Your task to perform on an android device: Install the Wikipedia app Image 0: 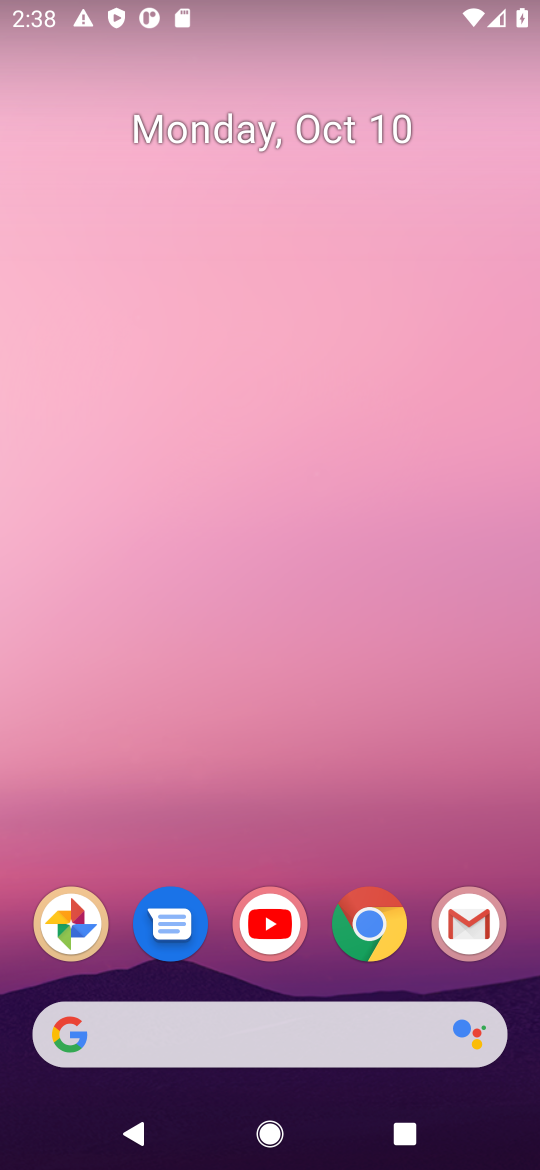
Step 0: drag from (50, 927) to (271, 472)
Your task to perform on an android device: Install the Wikipedia app Image 1: 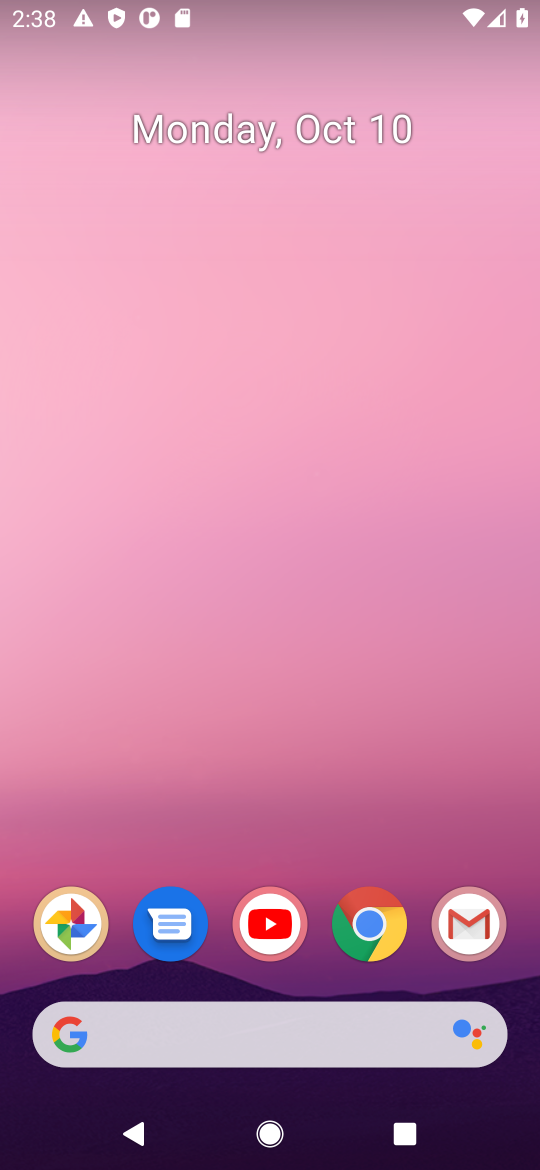
Step 1: drag from (356, 1025) to (335, 166)
Your task to perform on an android device: Install the Wikipedia app Image 2: 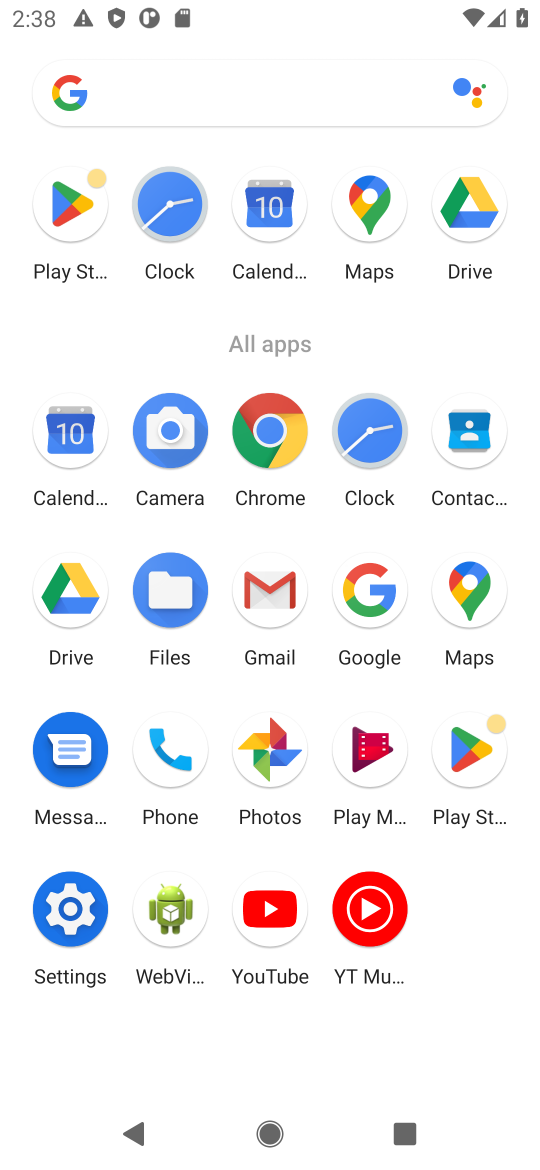
Step 2: click (474, 757)
Your task to perform on an android device: Install the Wikipedia app Image 3: 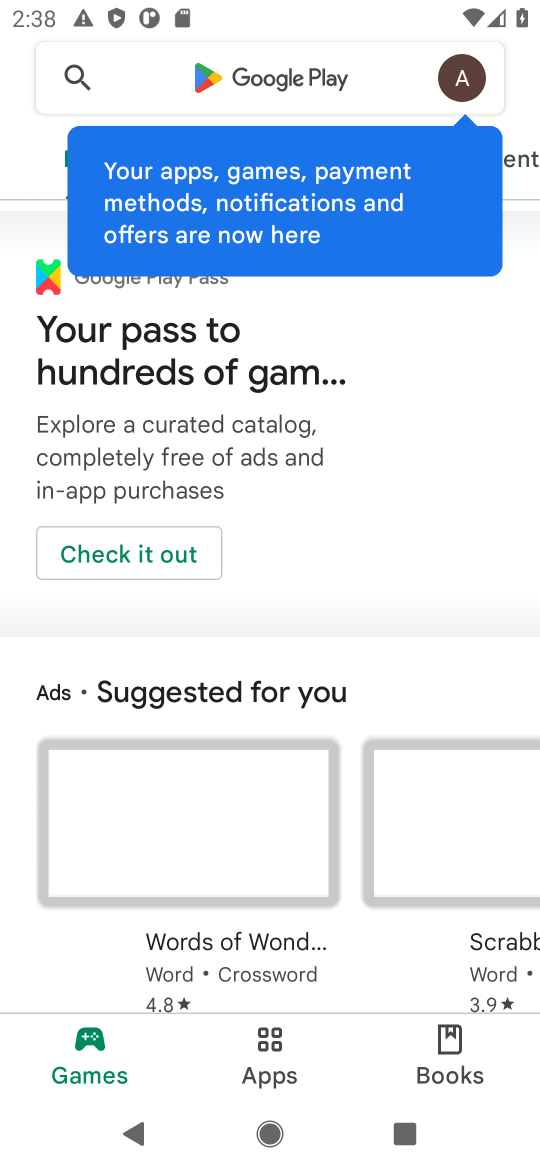
Step 3: click (278, 70)
Your task to perform on an android device: Install the Wikipedia app Image 4: 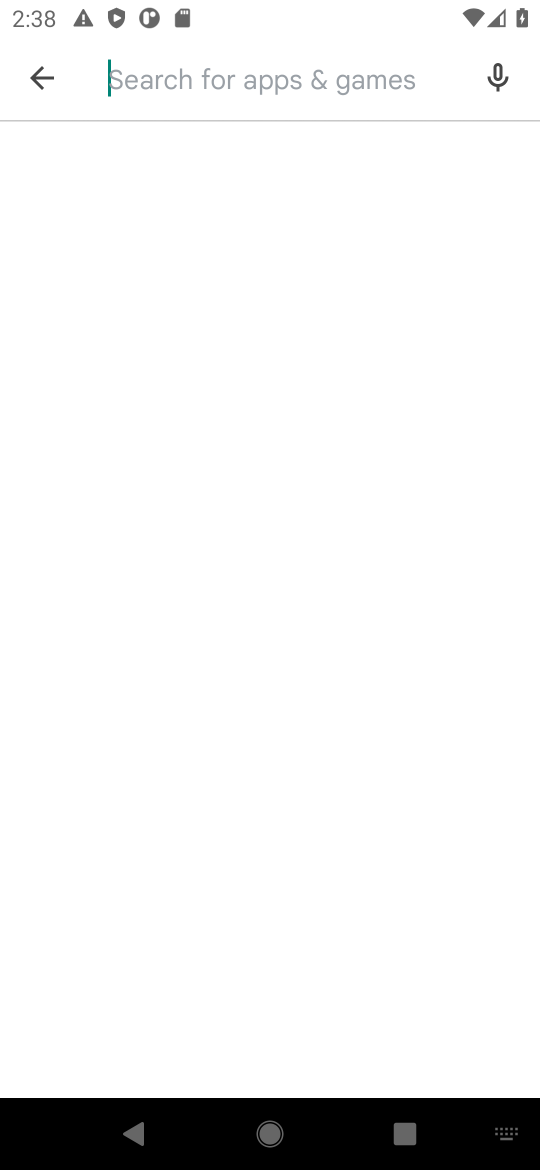
Step 4: type "wikipedia"
Your task to perform on an android device: Install the Wikipedia app Image 5: 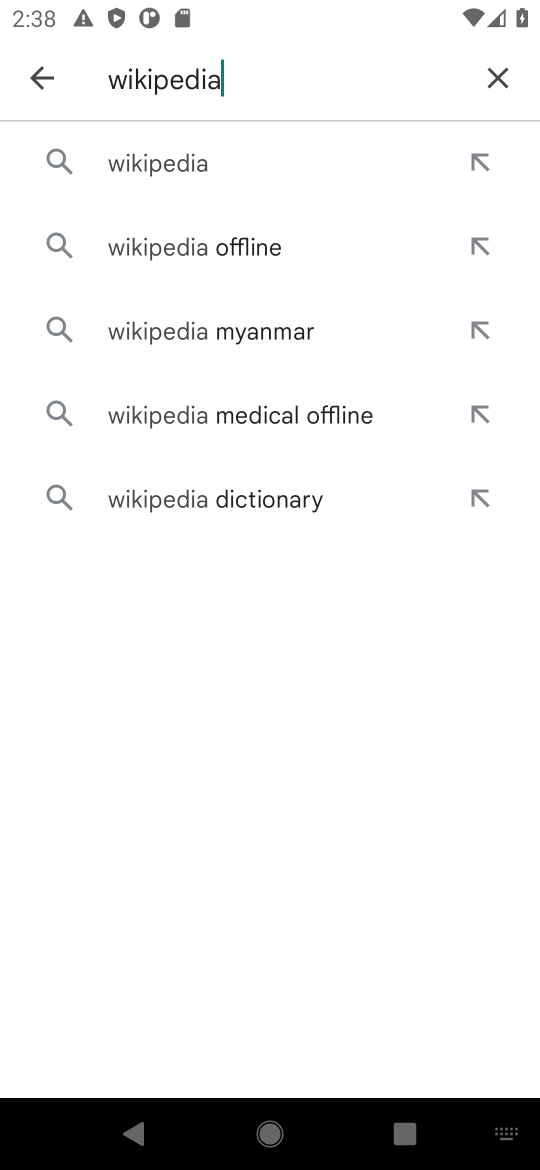
Step 5: type ""
Your task to perform on an android device: Install the Wikipedia app Image 6: 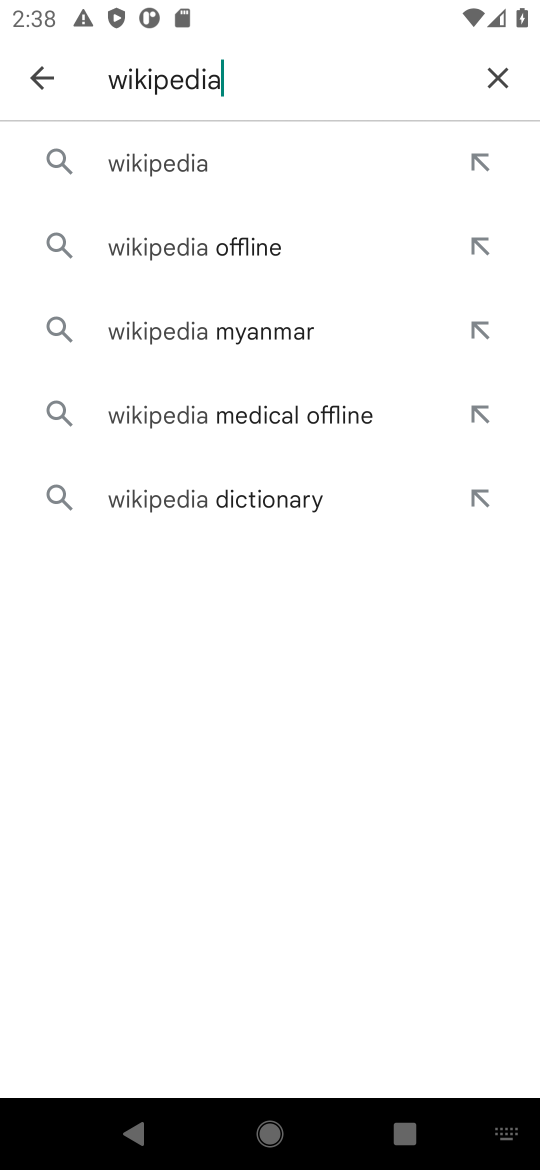
Step 6: type ""
Your task to perform on an android device: Install the Wikipedia app Image 7: 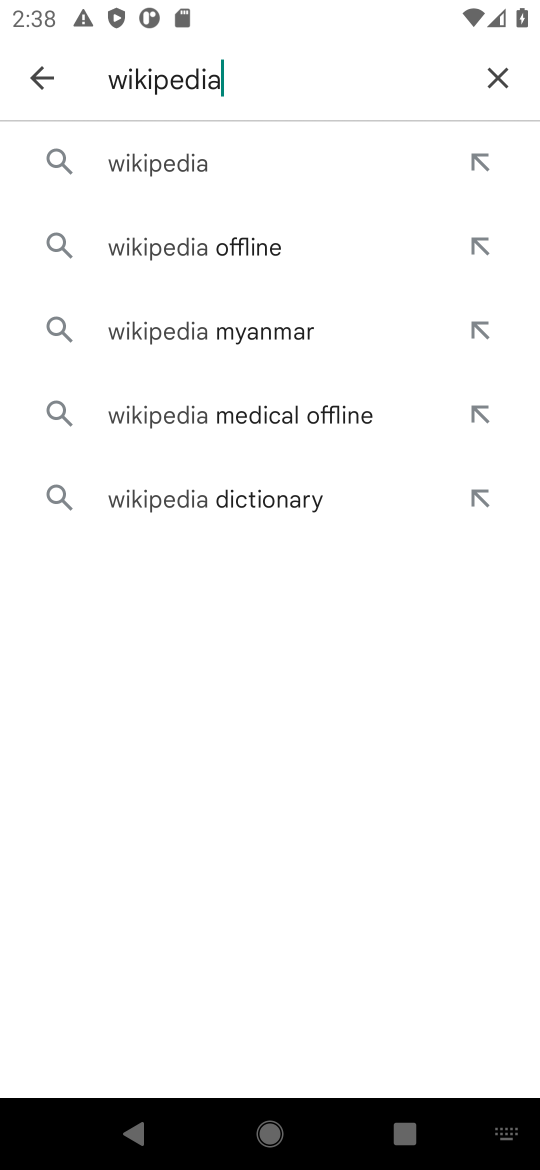
Step 7: press enter
Your task to perform on an android device: Install the Wikipedia app Image 8: 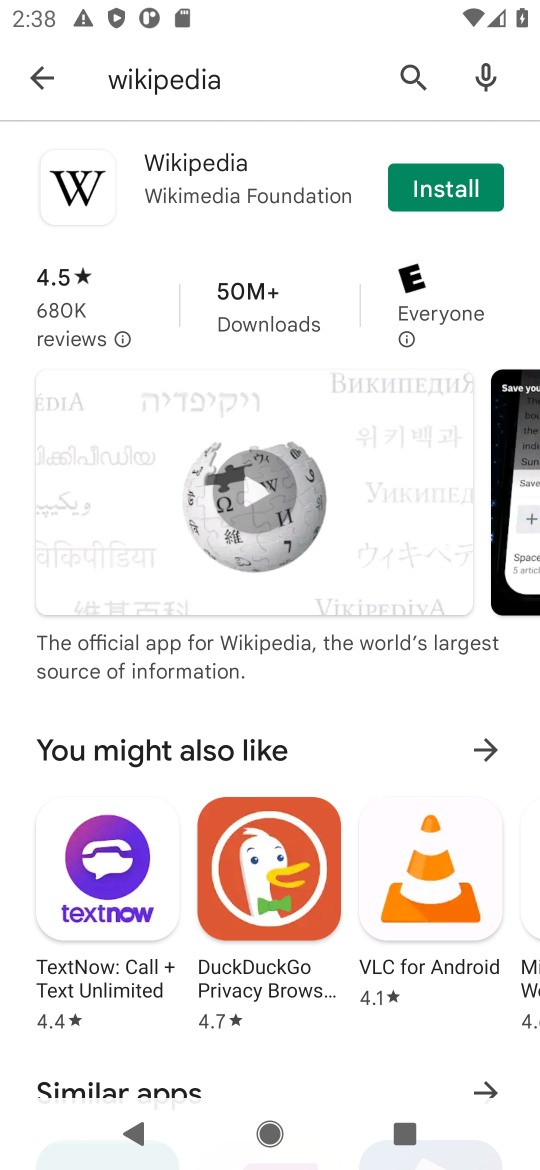
Step 8: click (435, 195)
Your task to perform on an android device: Install the Wikipedia app Image 9: 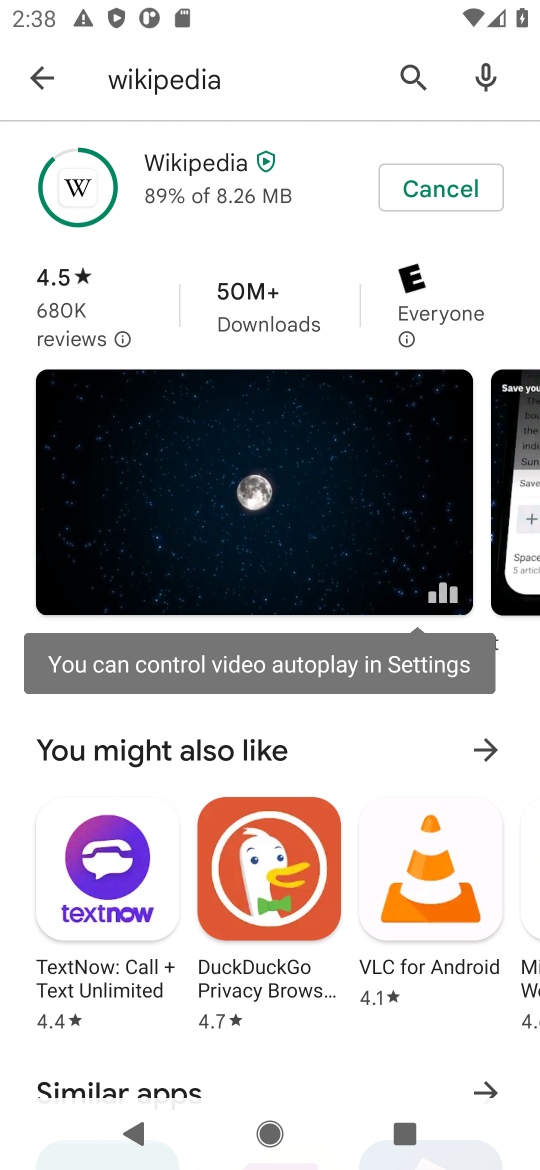
Step 9: task complete